Your task to perform on an android device: turn on airplane mode Image 0: 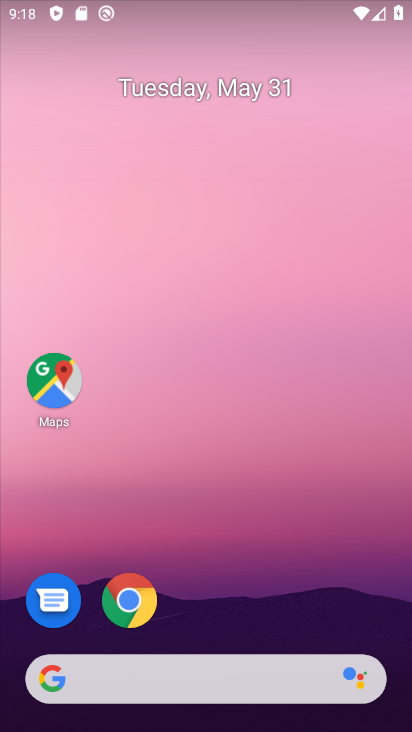
Step 0: drag from (224, 625) to (213, 199)
Your task to perform on an android device: turn on airplane mode Image 1: 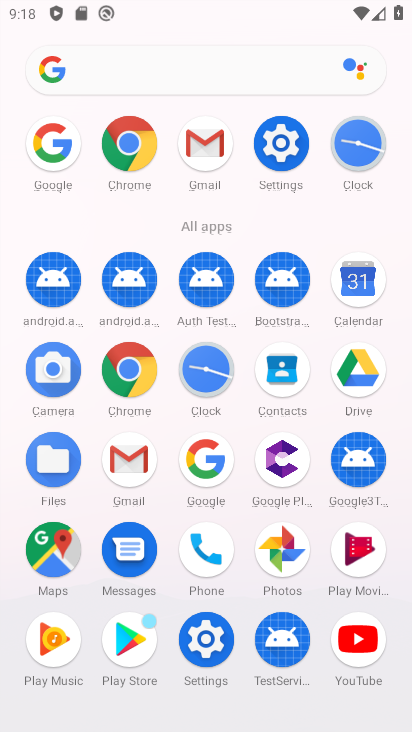
Step 1: click (287, 142)
Your task to perform on an android device: turn on airplane mode Image 2: 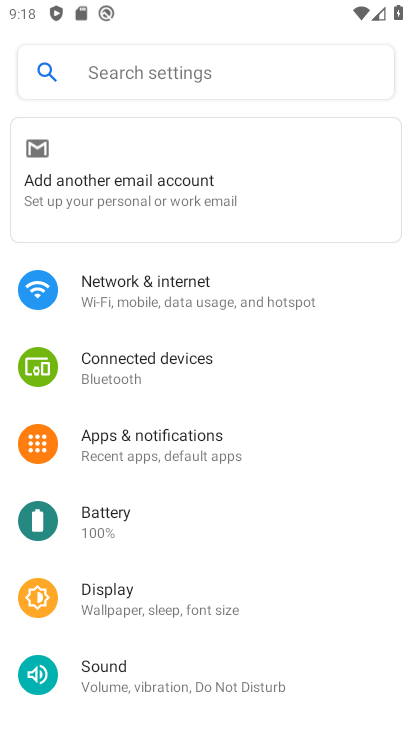
Step 2: click (154, 286)
Your task to perform on an android device: turn on airplane mode Image 3: 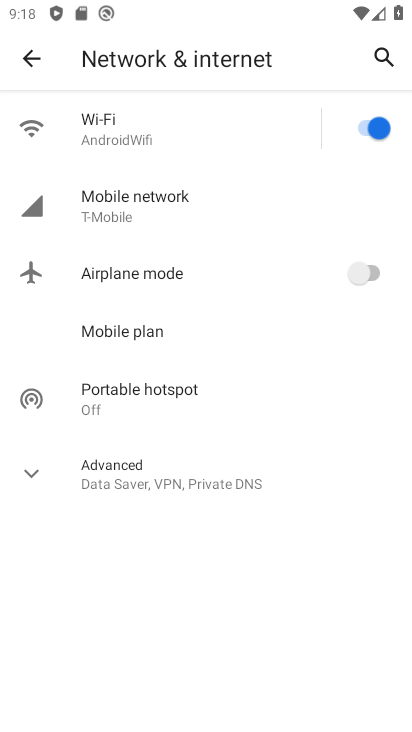
Step 3: task complete